Your task to perform on an android device: find snoozed emails in the gmail app Image 0: 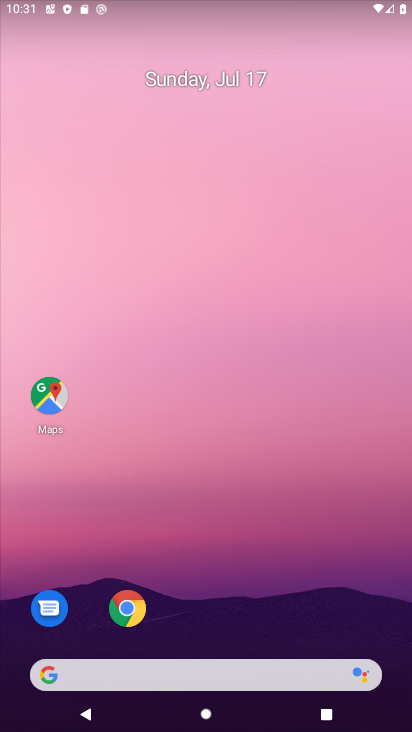
Step 0: drag from (31, 703) to (182, 168)
Your task to perform on an android device: find snoozed emails in the gmail app Image 1: 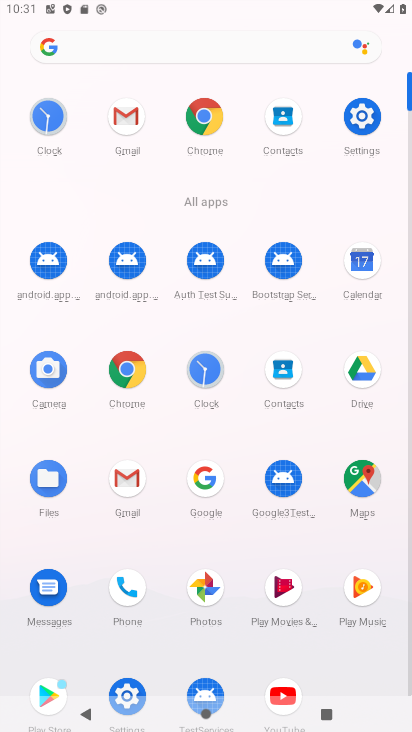
Step 1: click (119, 477)
Your task to perform on an android device: find snoozed emails in the gmail app Image 2: 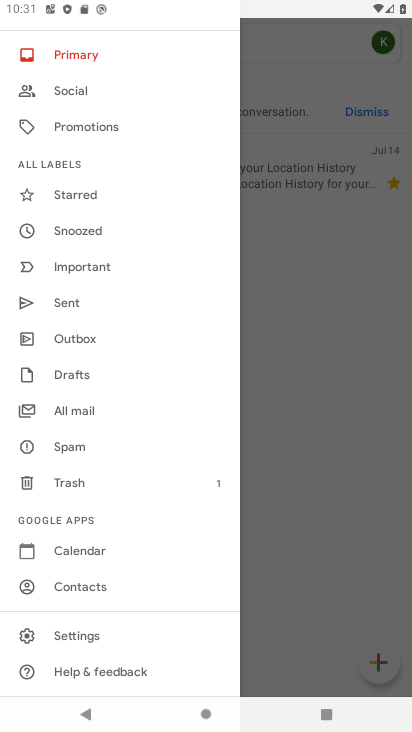
Step 2: click (71, 233)
Your task to perform on an android device: find snoozed emails in the gmail app Image 3: 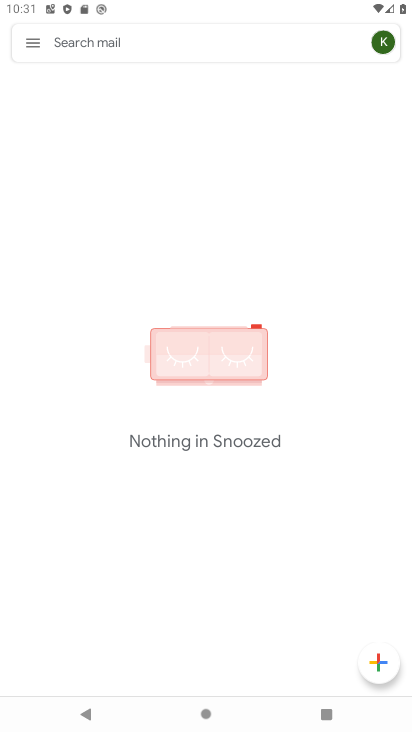
Step 3: task complete